Your task to perform on an android device: change your default location settings in chrome Image 0: 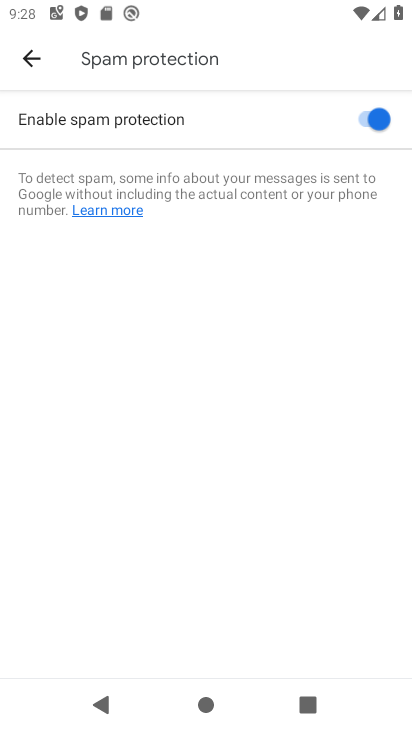
Step 0: press home button
Your task to perform on an android device: change your default location settings in chrome Image 1: 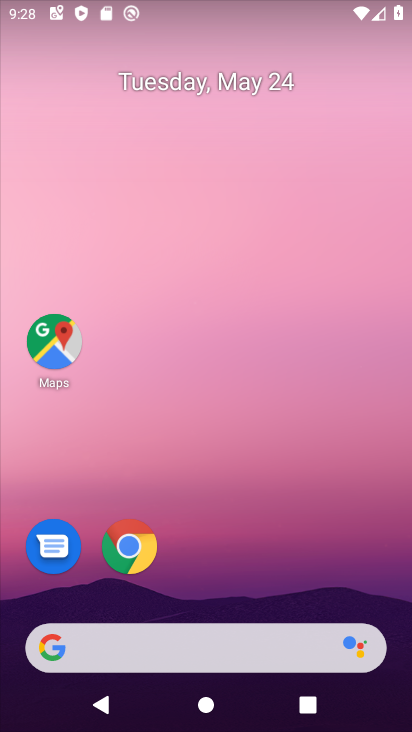
Step 1: click (146, 550)
Your task to perform on an android device: change your default location settings in chrome Image 2: 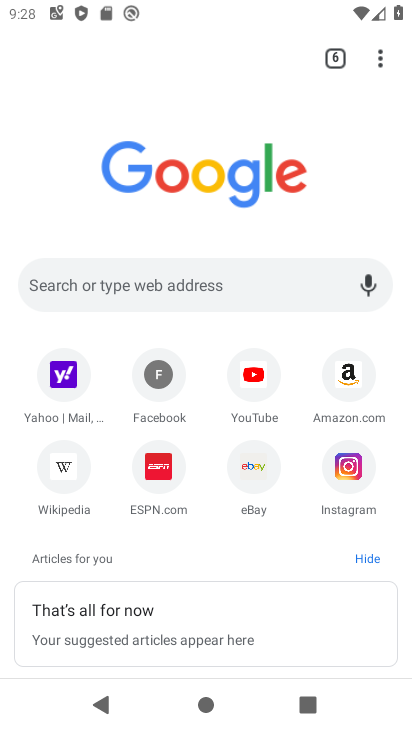
Step 2: click (381, 58)
Your task to perform on an android device: change your default location settings in chrome Image 3: 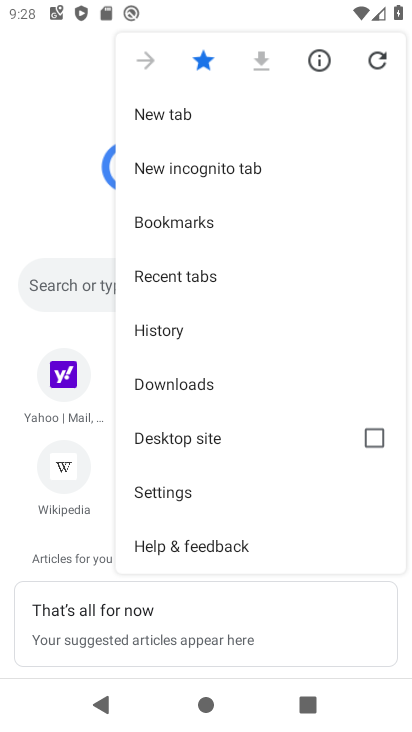
Step 3: click (196, 494)
Your task to perform on an android device: change your default location settings in chrome Image 4: 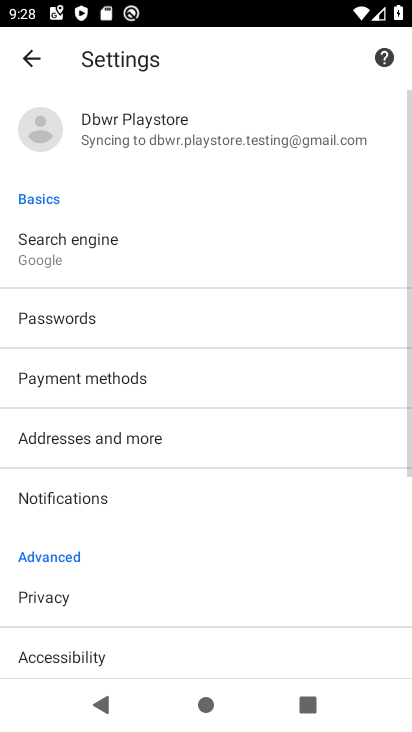
Step 4: drag from (193, 545) to (207, 246)
Your task to perform on an android device: change your default location settings in chrome Image 5: 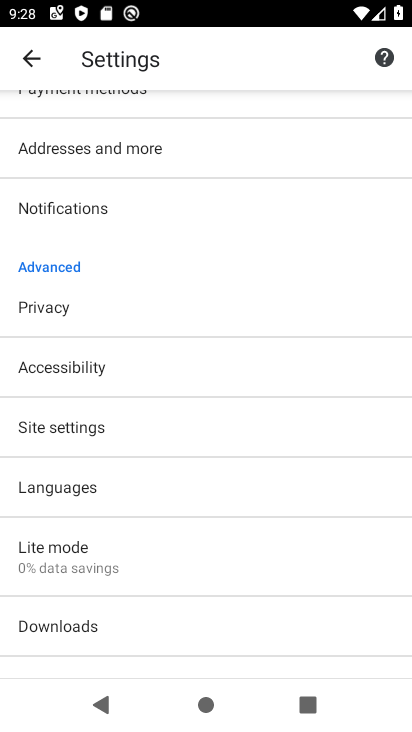
Step 5: click (170, 431)
Your task to perform on an android device: change your default location settings in chrome Image 6: 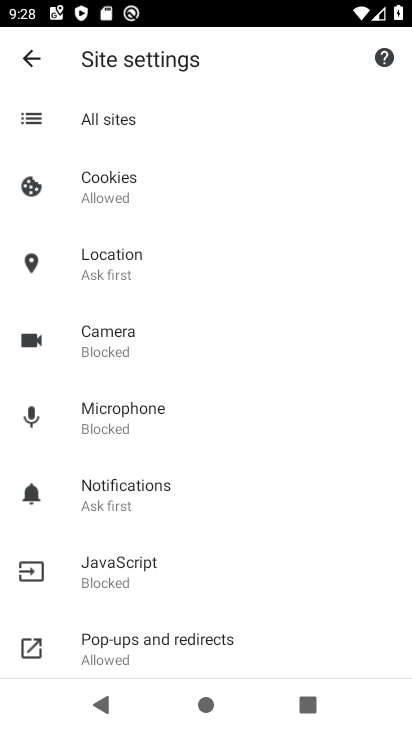
Step 6: click (158, 264)
Your task to perform on an android device: change your default location settings in chrome Image 7: 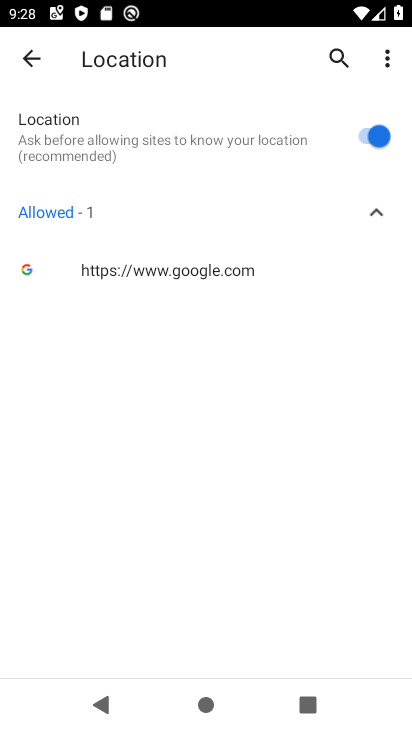
Step 7: click (369, 136)
Your task to perform on an android device: change your default location settings in chrome Image 8: 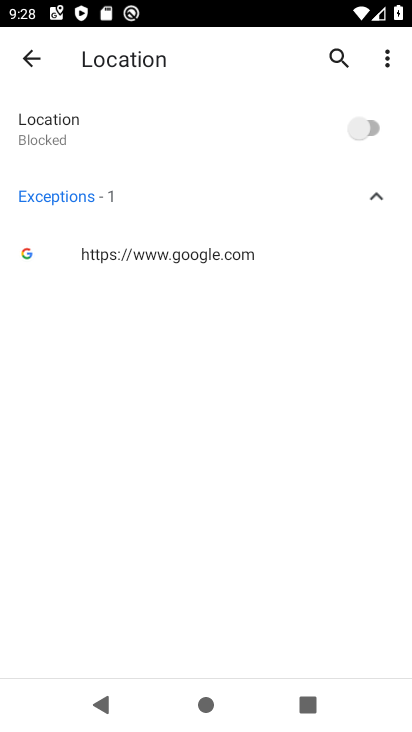
Step 8: task complete